Your task to perform on an android device: turn on data saver in the chrome app Image 0: 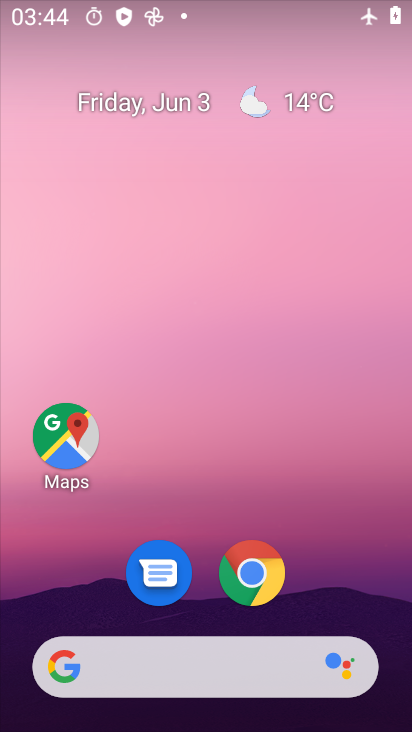
Step 0: drag from (192, 637) to (228, 98)
Your task to perform on an android device: turn on data saver in the chrome app Image 1: 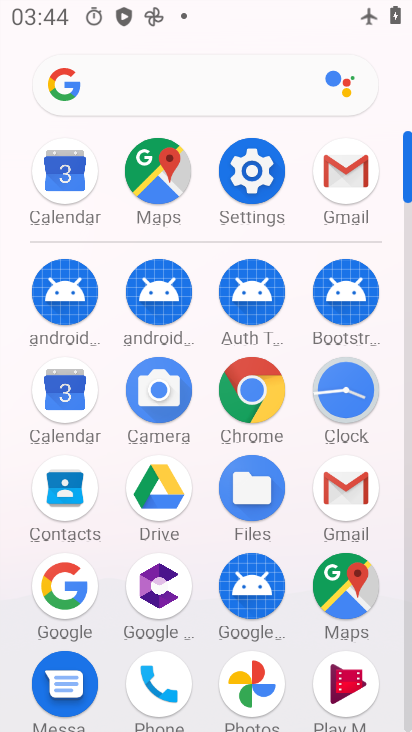
Step 1: click (259, 395)
Your task to perform on an android device: turn on data saver in the chrome app Image 2: 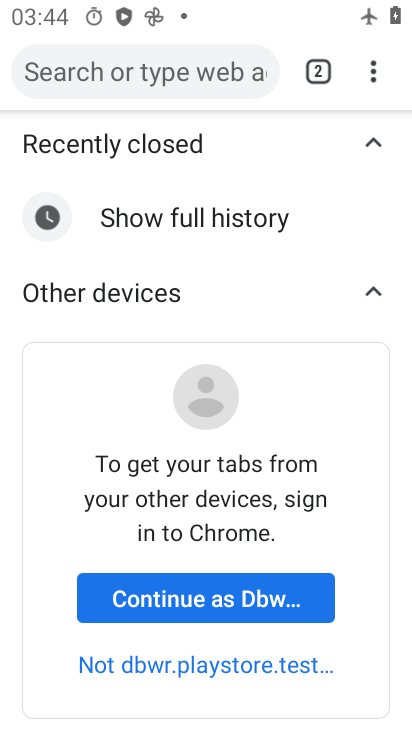
Step 2: drag from (377, 67) to (234, 609)
Your task to perform on an android device: turn on data saver in the chrome app Image 3: 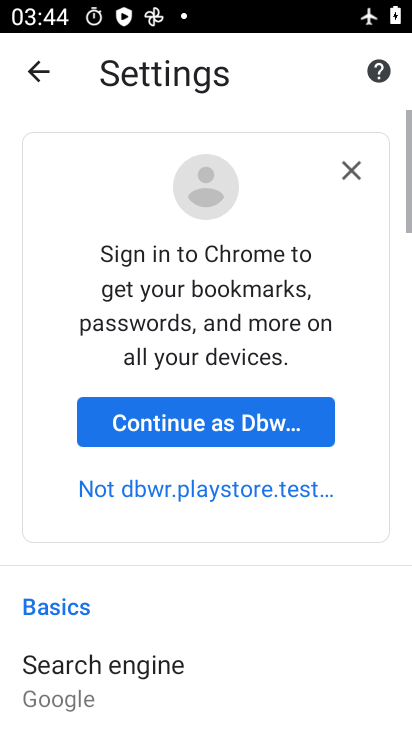
Step 3: drag from (288, 628) to (331, 55)
Your task to perform on an android device: turn on data saver in the chrome app Image 4: 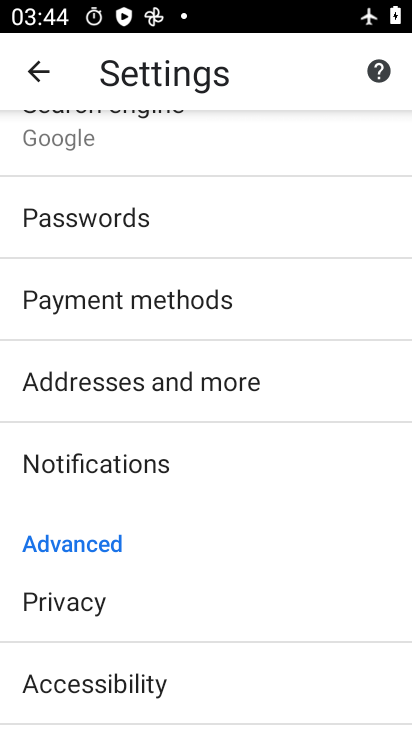
Step 4: drag from (246, 634) to (266, 199)
Your task to perform on an android device: turn on data saver in the chrome app Image 5: 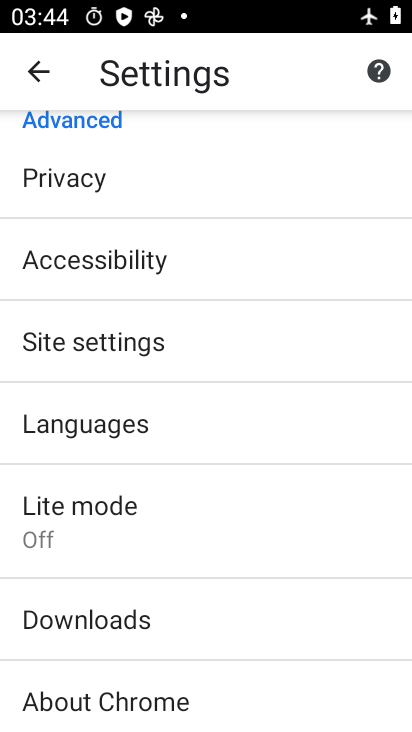
Step 5: click (153, 509)
Your task to perform on an android device: turn on data saver in the chrome app Image 6: 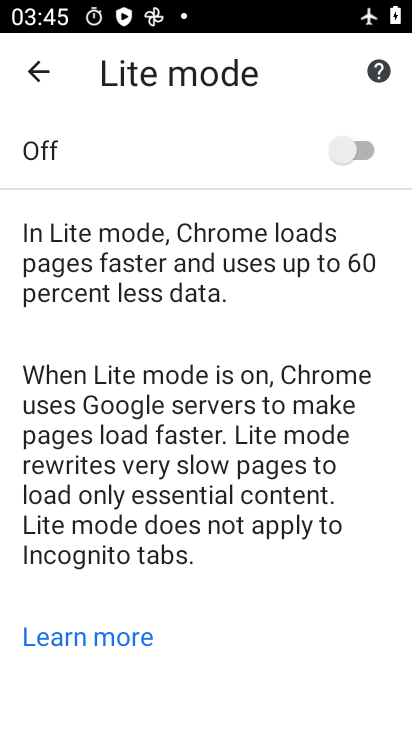
Step 6: click (371, 137)
Your task to perform on an android device: turn on data saver in the chrome app Image 7: 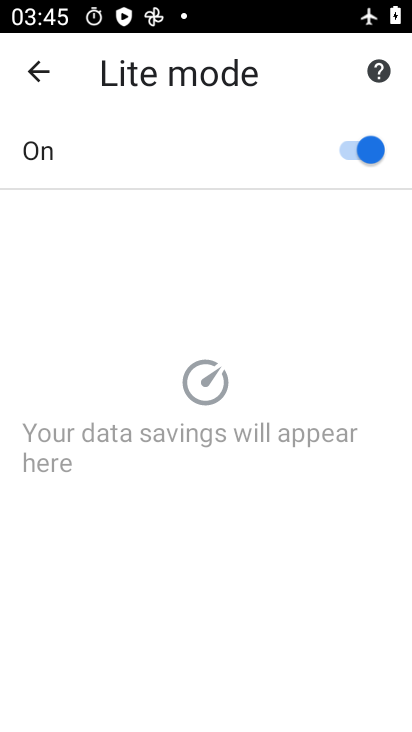
Step 7: task complete